Your task to perform on an android device: check storage Image 0: 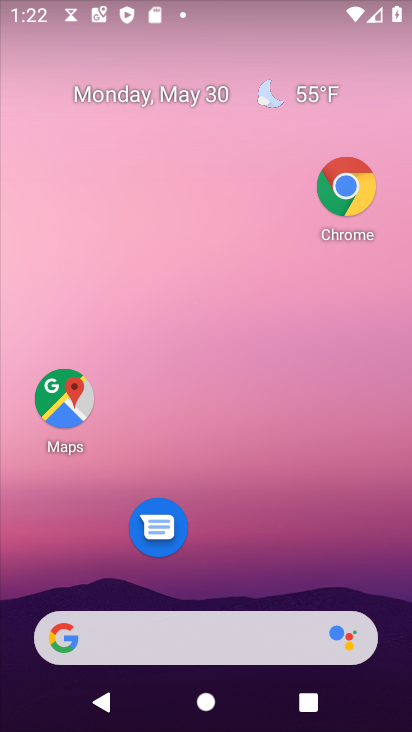
Step 0: click (242, 157)
Your task to perform on an android device: check storage Image 1: 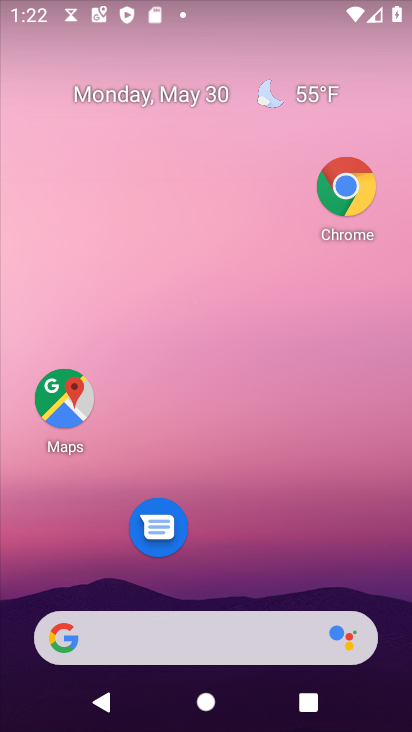
Step 1: drag from (222, 555) to (243, 21)
Your task to perform on an android device: check storage Image 2: 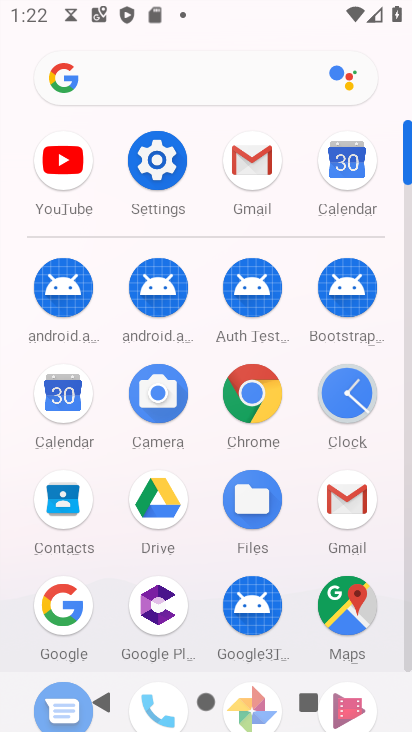
Step 2: click (148, 176)
Your task to perform on an android device: check storage Image 3: 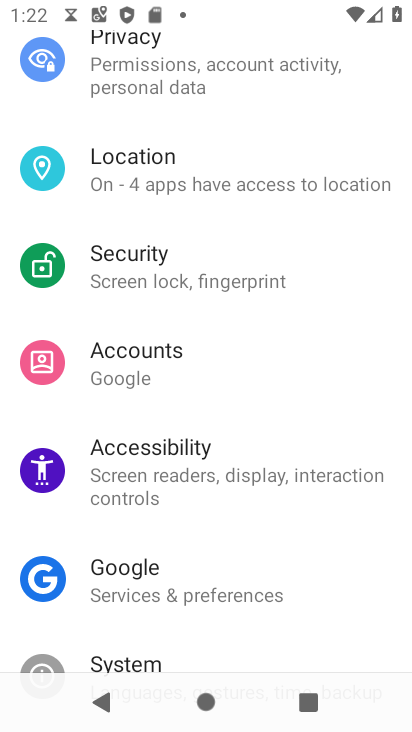
Step 3: drag from (238, 491) to (284, 223)
Your task to perform on an android device: check storage Image 4: 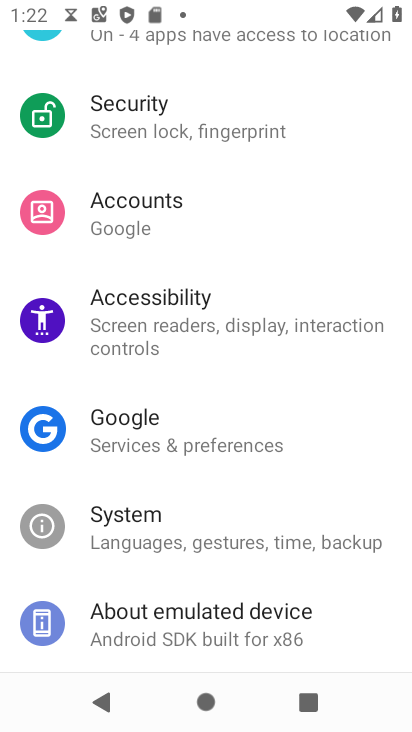
Step 4: drag from (274, 164) to (329, 626)
Your task to perform on an android device: check storage Image 5: 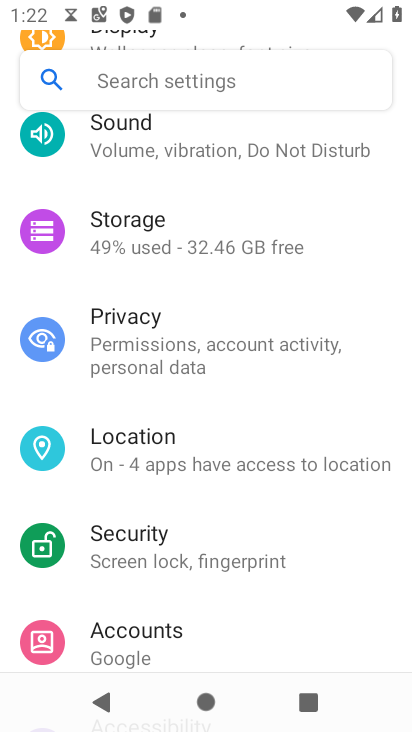
Step 5: click (169, 228)
Your task to perform on an android device: check storage Image 6: 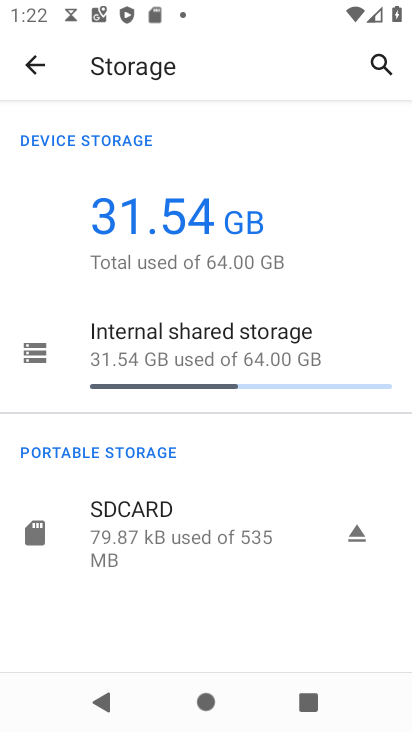
Step 6: task complete